Your task to perform on an android device: open a bookmark in the chrome app Image 0: 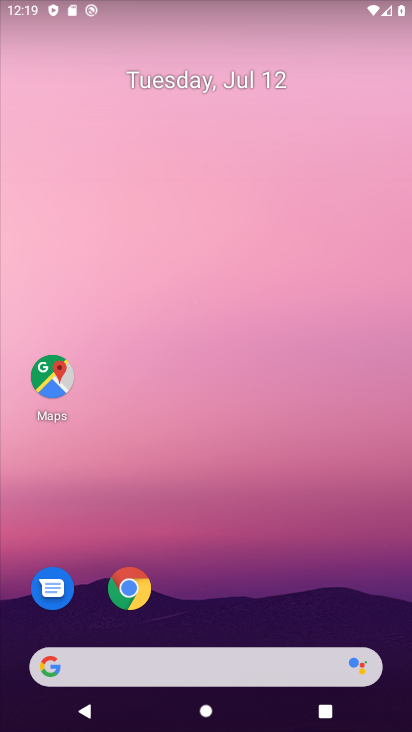
Step 0: click (121, 589)
Your task to perform on an android device: open a bookmark in the chrome app Image 1: 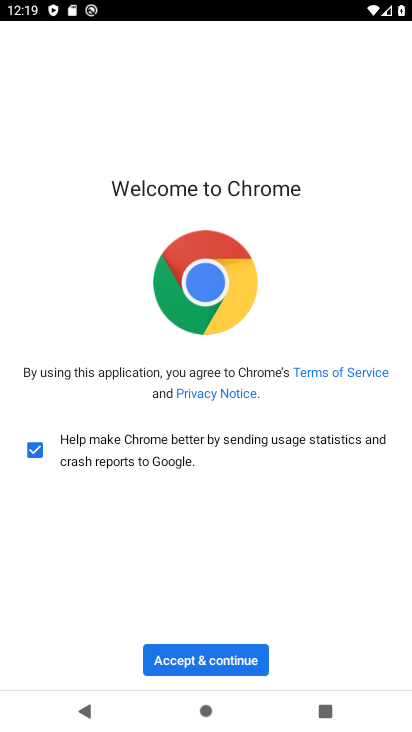
Step 1: click (223, 665)
Your task to perform on an android device: open a bookmark in the chrome app Image 2: 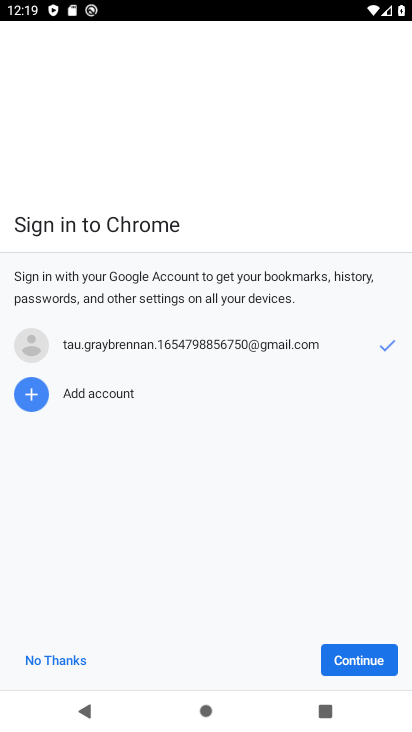
Step 2: click (389, 655)
Your task to perform on an android device: open a bookmark in the chrome app Image 3: 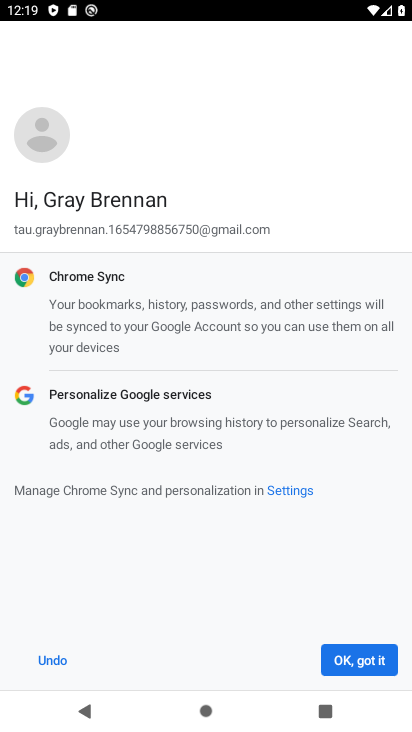
Step 3: click (366, 653)
Your task to perform on an android device: open a bookmark in the chrome app Image 4: 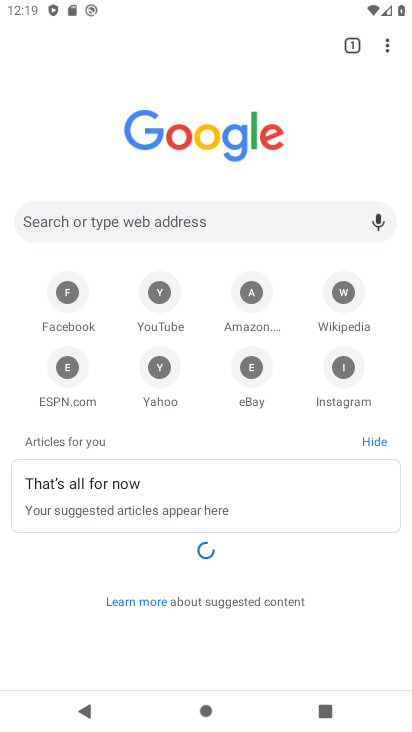
Step 4: click (386, 50)
Your task to perform on an android device: open a bookmark in the chrome app Image 5: 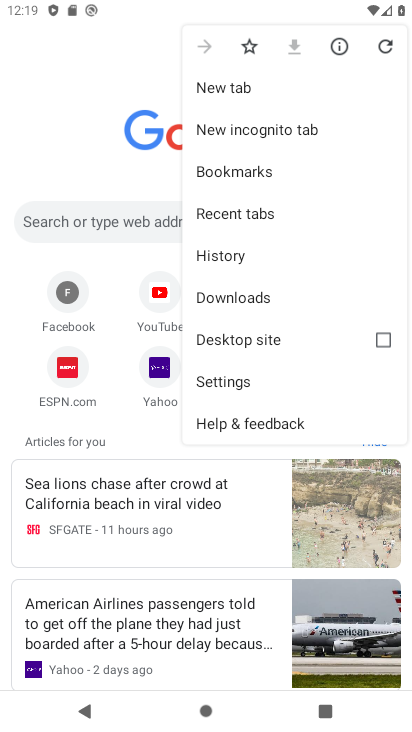
Step 5: click (245, 168)
Your task to perform on an android device: open a bookmark in the chrome app Image 6: 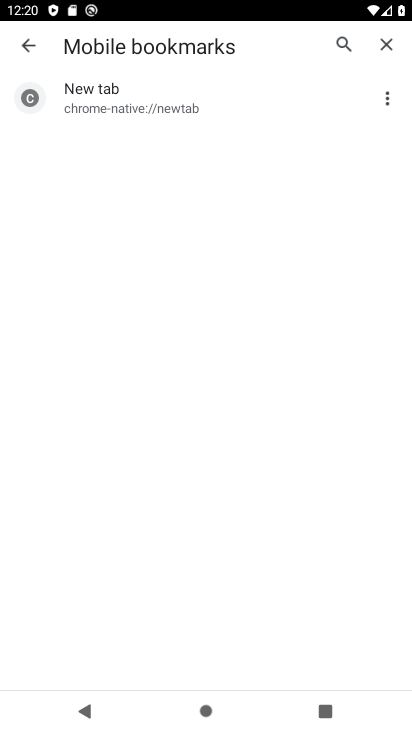
Step 6: task complete